Your task to perform on an android device: toggle pop-ups in chrome Image 0: 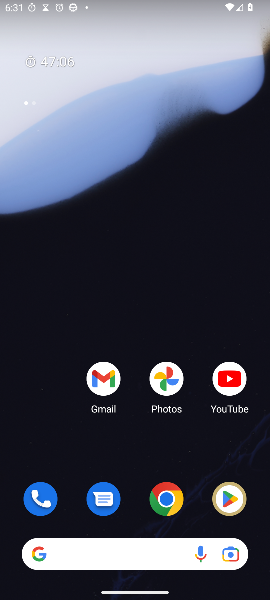
Step 0: drag from (125, 492) to (127, 33)
Your task to perform on an android device: toggle pop-ups in chrome Image 1: 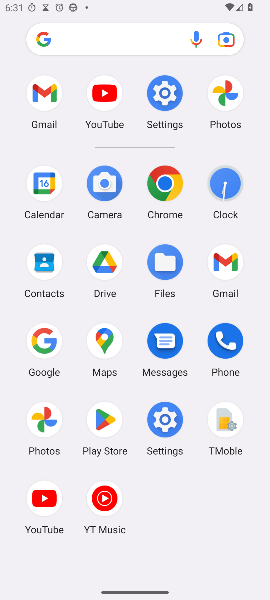
Step 1: click (172, 195)
Your task to perform on an android device: toggle pop-ups in chrome Image 2: 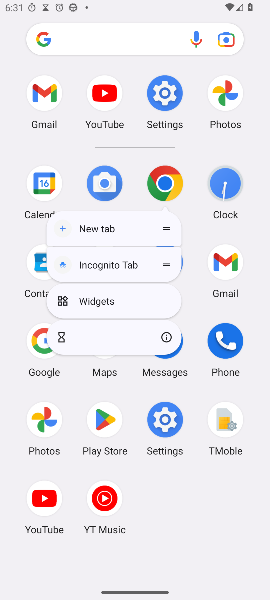
Step 2: click (170, 194)
Your task to perform on an android device: toggle pop-ups in chrome Image 3: 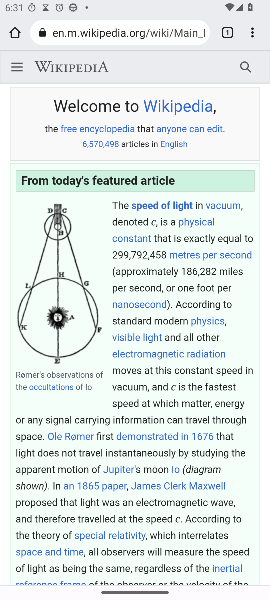
Step 3: click (240, 40)
Your task to perform on an android device: toggle pop-ups in chrome Image 4: 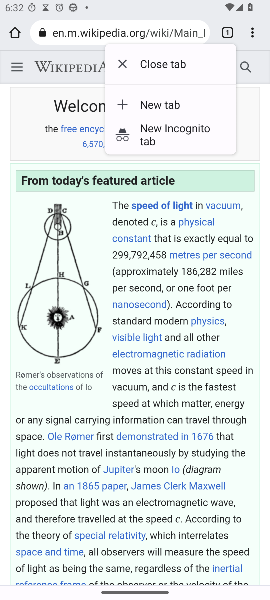
Step 4: click (245, 28)
Your task to perform on an android device: toggle pop-ups in chrome Image 5: 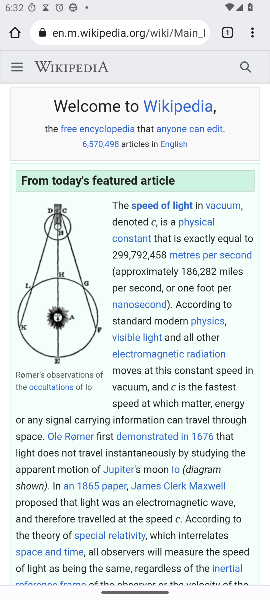
Step 5: drag from (256, 38) to (166, 412)
Your task to perform on an android device: toggle pop-ups in chrome Image 6: 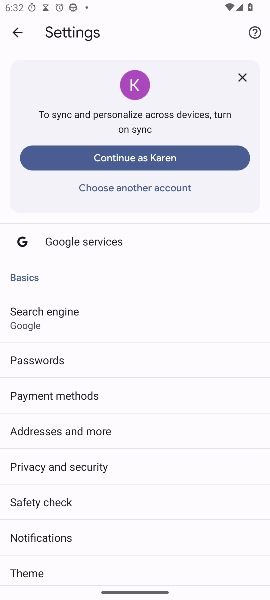
Step 6: drag from (151, 519) to (72, 170)
Your task to perform on an android device: toggle pop-ups in chrome Image 7: 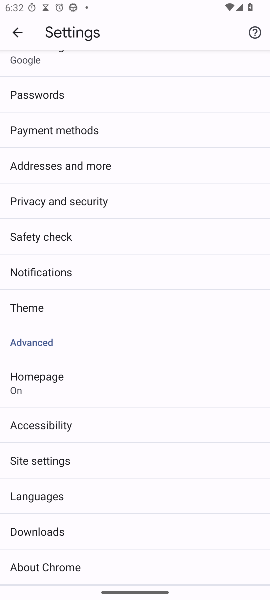
Step 7: drag from (51, 204) to (126, 560)
Your task to perform on an android device: toggle pop-ups in chrome Image 8: 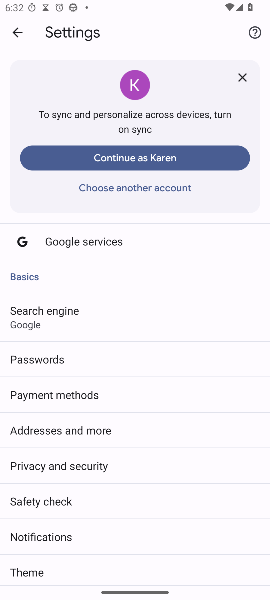
Step 8: drag from (124, 539) to (105, 259)
Your task to perform on an android device: toggle pop-ups in chrome Image 9: 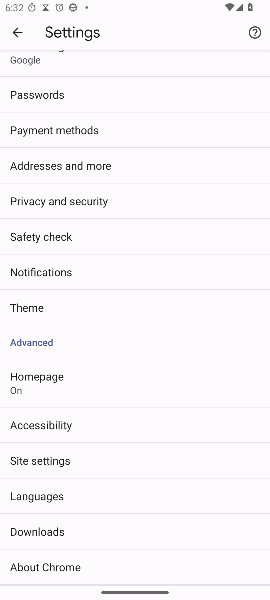
Step 9: click (89, 463)
Your task to perform on an android device: toggle pop-ups in chrome Image 10: 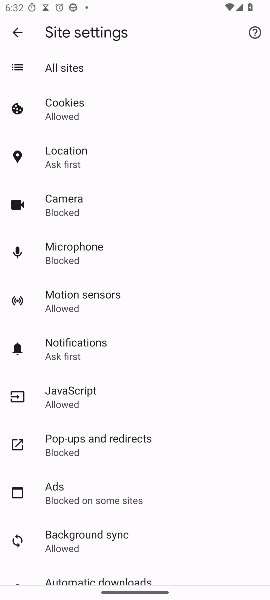
Step 10: click (91, 443)
Your task to perform on an android device: toggle pop-ups in chrome Image 11: 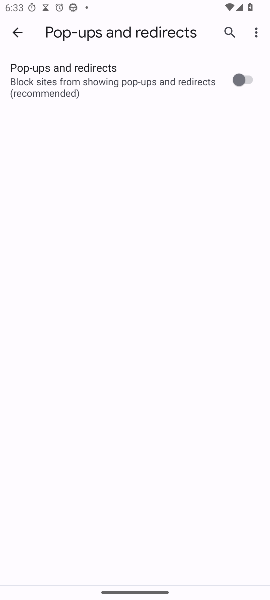
Step 11: click (238, 77)
Your task to perform on an android device: toggle pop-ups in chrome Image 12: 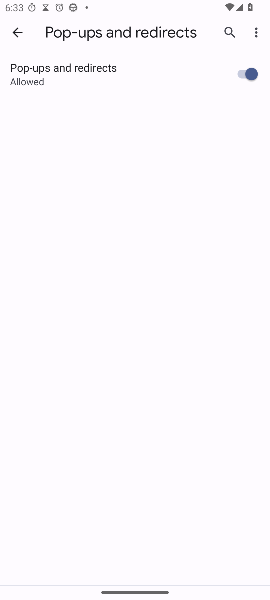
Step 12: task complete